Your task to perform on an android device: turn on sleep mode Image 0: 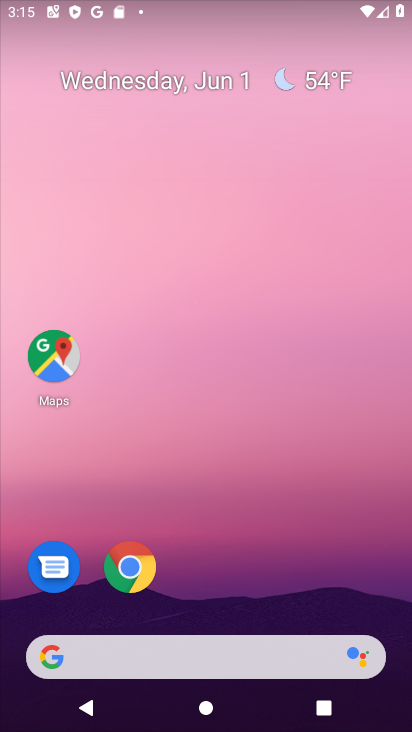
Step 0: drag from (198, 614) to (318, 100)
Your task to perform on an android device: turn on sleep mode Image 1: 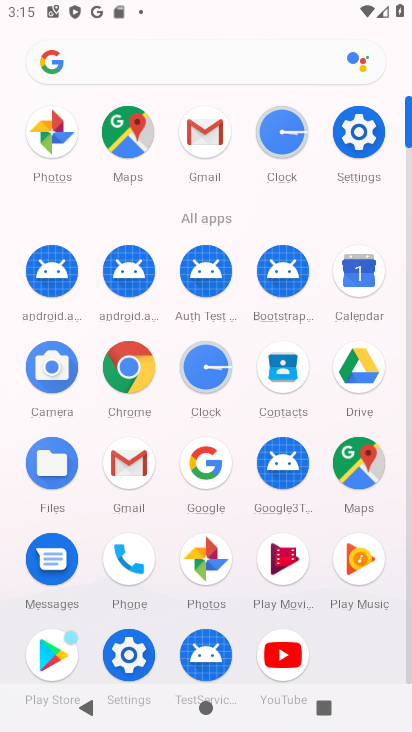
Step 1: click (114, 659)
Your task to perform on an android device: turn on sleep mode Image 2: 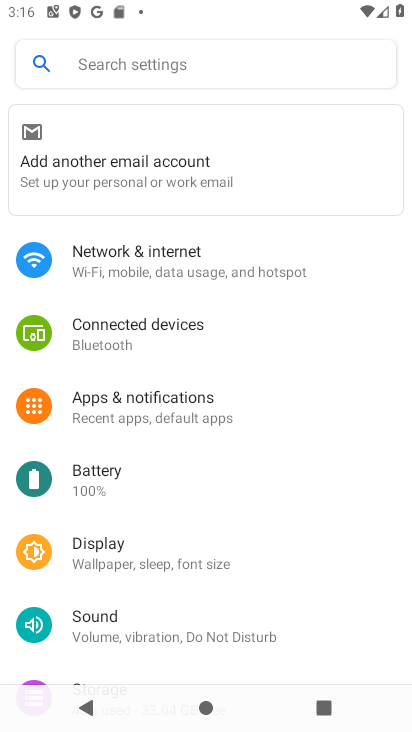
Step 2: drag from (217, 573) to (262, 432)
Your task to perform on an android device: turn on sleep mode Image 3: 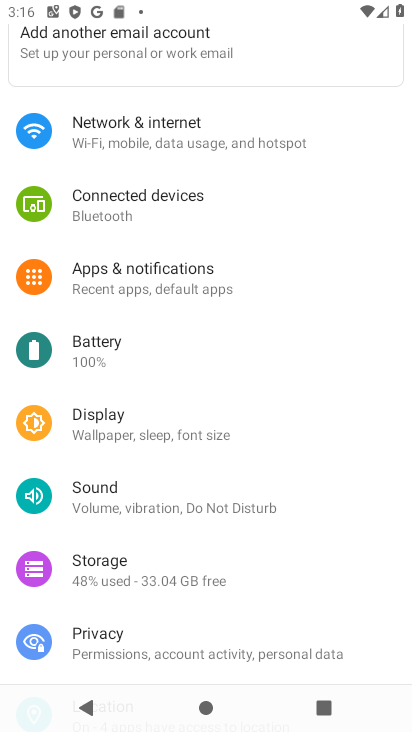
Step 3: click (197, 442)
Your task to perform on an android device: turn on sleep mode Image 4: 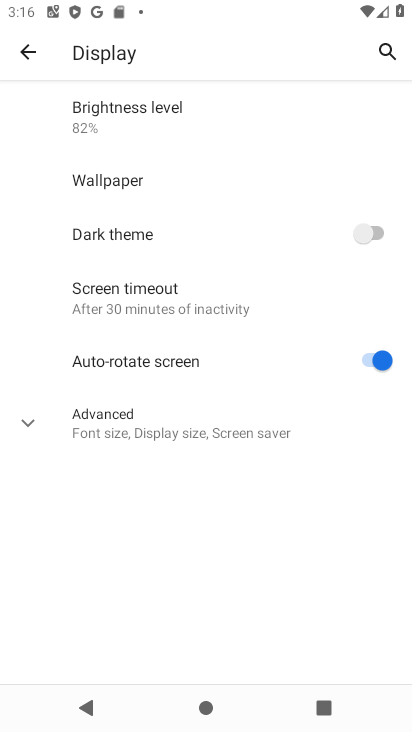
Step 4: click (199, 444)
Your task to perform on an android device: turn on sleep mode Image 5: 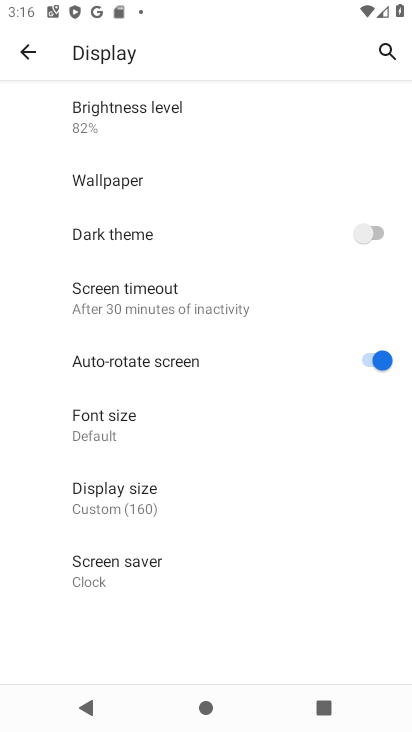
Step 5: task complete